Your task to perform on an android device: Go to battery settings Image 0: 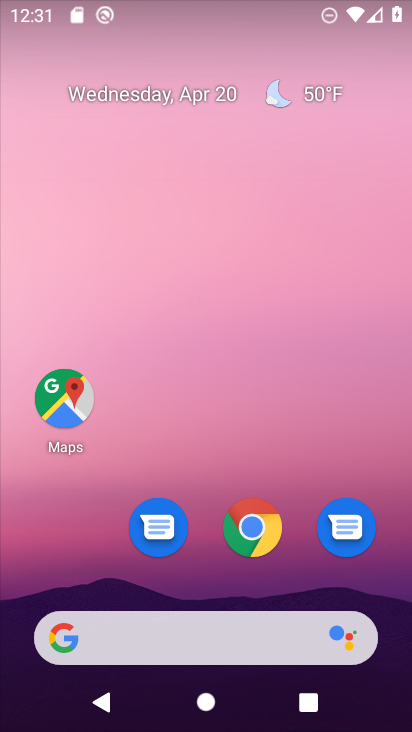
Step 0: drag from (403, 565) to (398, 27)
Your task to perform on an android device: Go to battery settings Image 1: 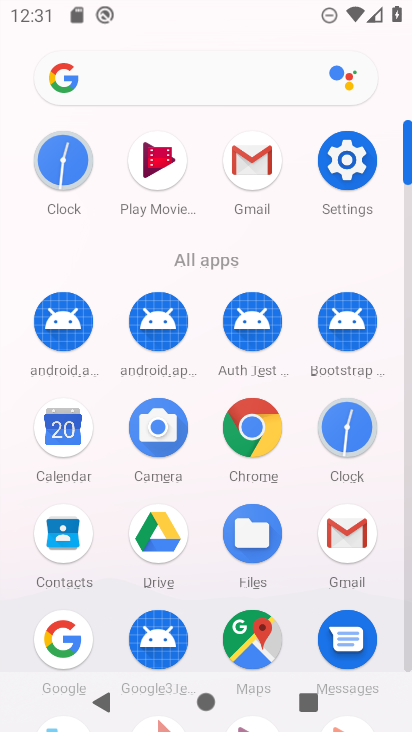
Step 1: click (343, 169)
Your task to perform on an android device: Go to battery settings Image 2: 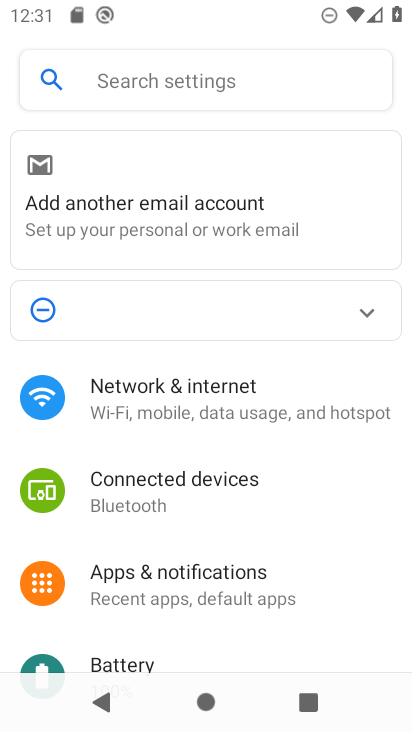
Step 2: drag from (323, 497) to (326, 124)
Your task to perform on an android device: Go to battery settings Image 3: 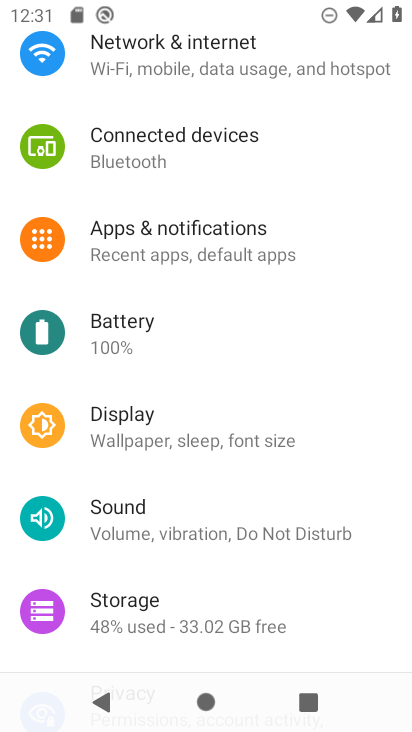
Step 3: click (114, 341)
Your task to perform on an android device: Go to battery settings Image 4: 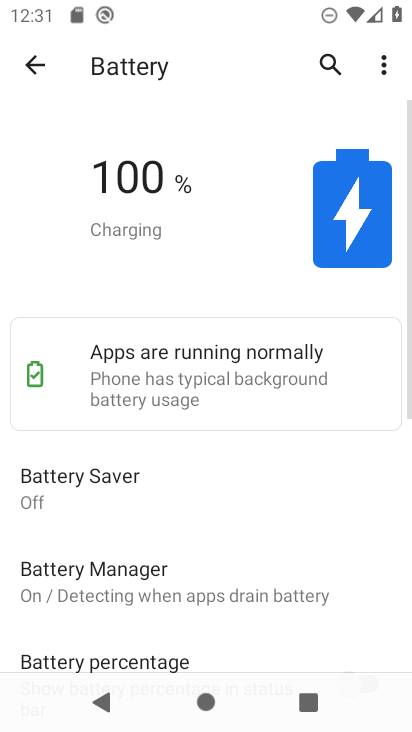
Step 4: task complete